Your task to perform on an android device: search for starred emails in the gmail app Image 0: 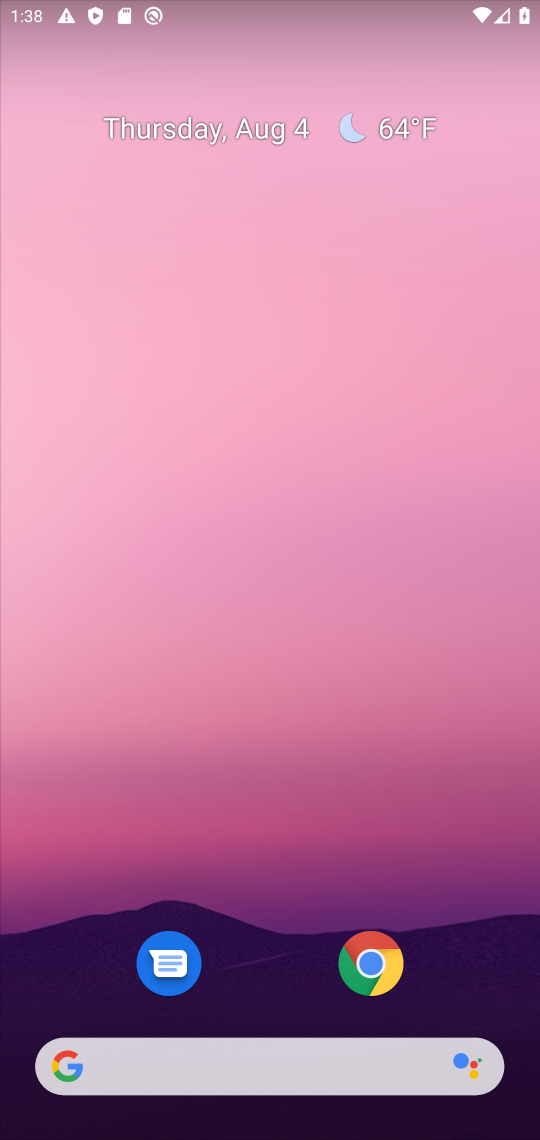
Step 0: drag from (264, 836) to (288, 237)
Your task to perform on an android device: search for starred emails in the gmail app Image 1: 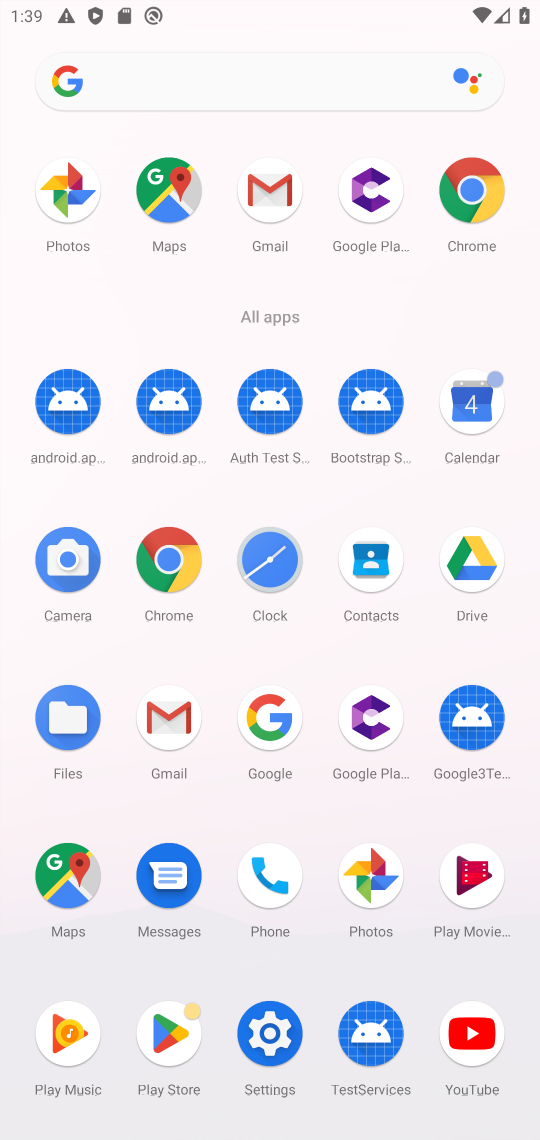
Step 1: click (170, 711)
Your task to perform on an android device: search for starred emails in the gmail app Image 2: 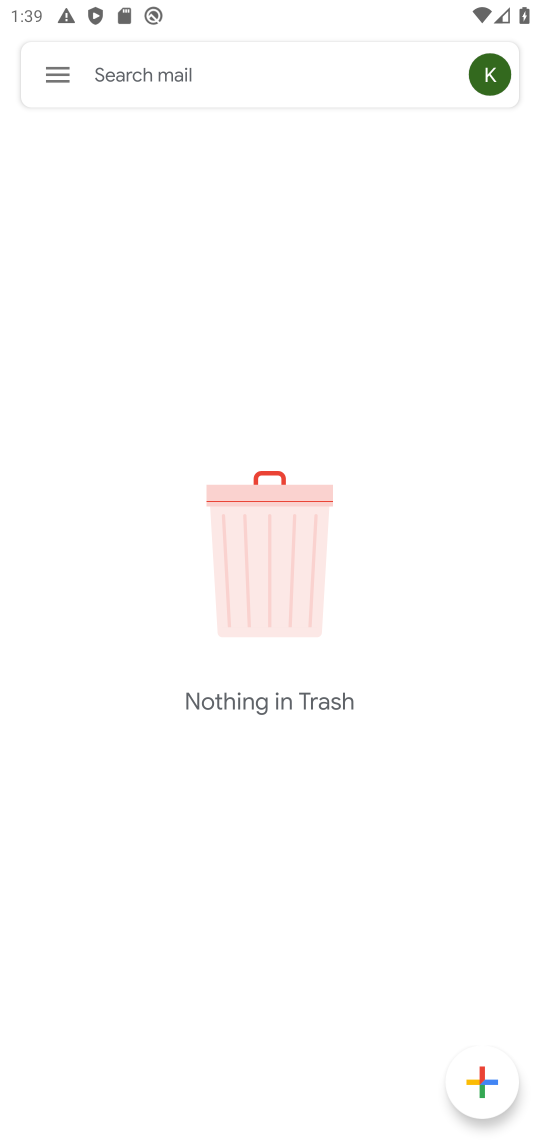
Step 2: click (58, 71)
Your task to perform on an android device: search for starred emails in the gmail app Image 3: 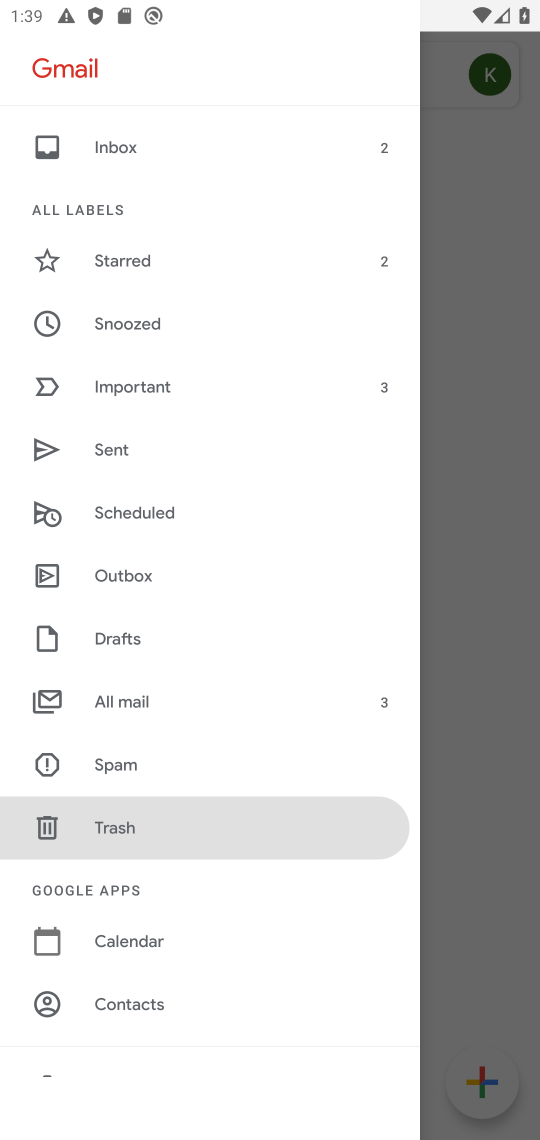
Step 3: click (144, 262)
Your task to perform on an android device: search for starred emails in the gmail app Image 4: 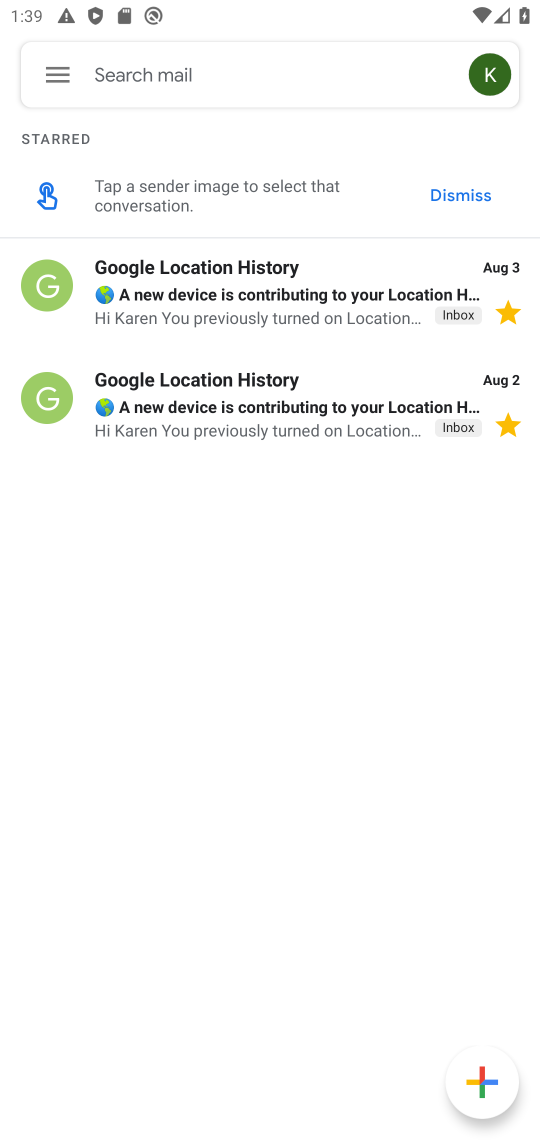
Step 4: task complete